Your task to perform on an android device: toggle notification dots Image 0: 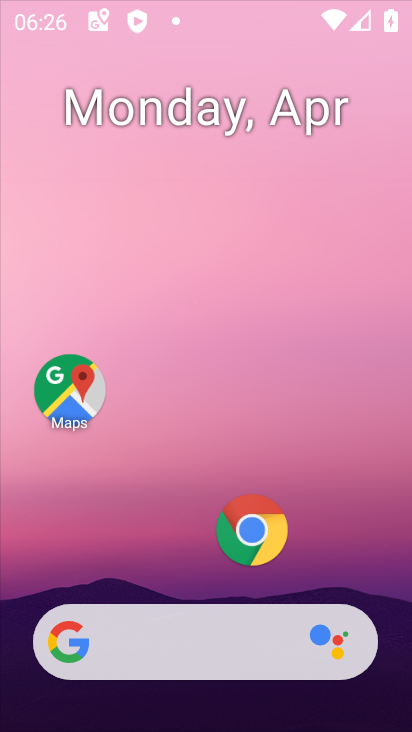
Step 0: press home button
Your task to perform on an android device: toggle notification dots Image 1: 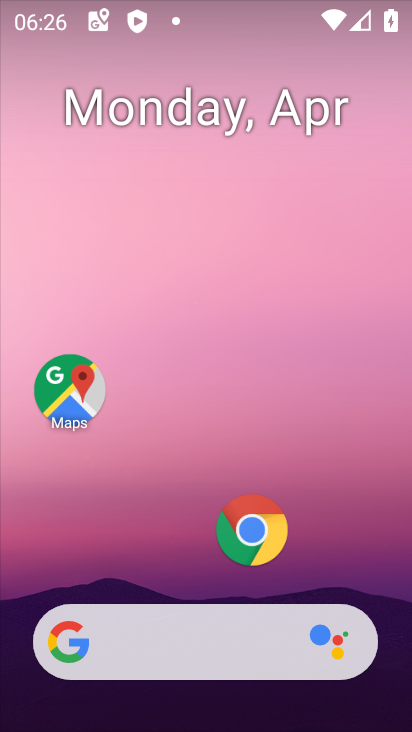
Step 1: drag from (184, 572) to (248, 168)
Your task to perform on an android device: toggle notification dots Image 2: 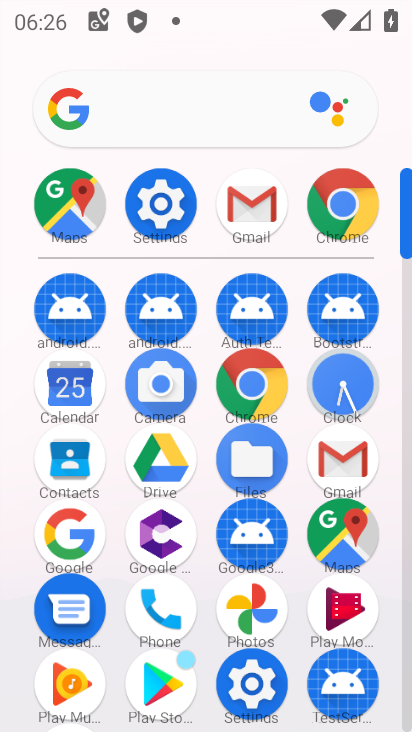
Step 2: click (248, 678)
Your task to perform on an android device: toggle notification dots Image 3: 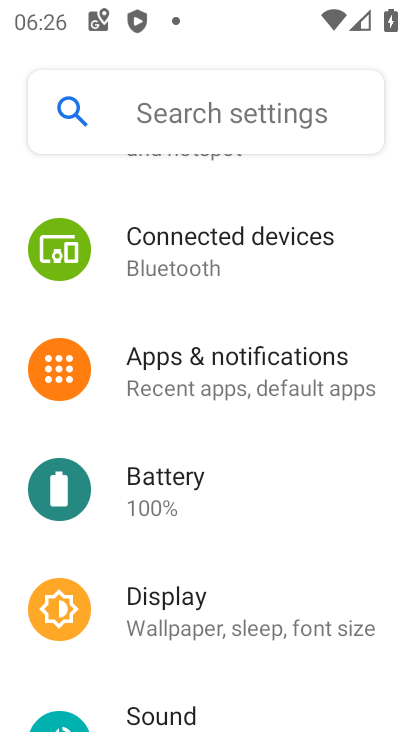
Step 3: click (230, 367)
Your task to perform on an android device: toggle notification dots Image 4: 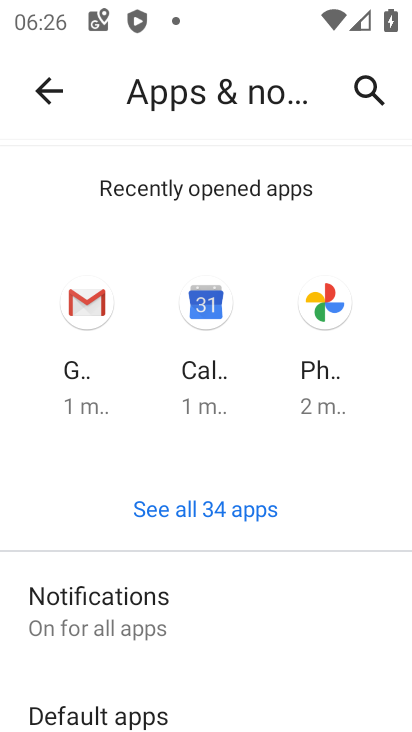
Step 4: click (183, 617)
Your task to perform on an android device: toggle notification dots Image 5: 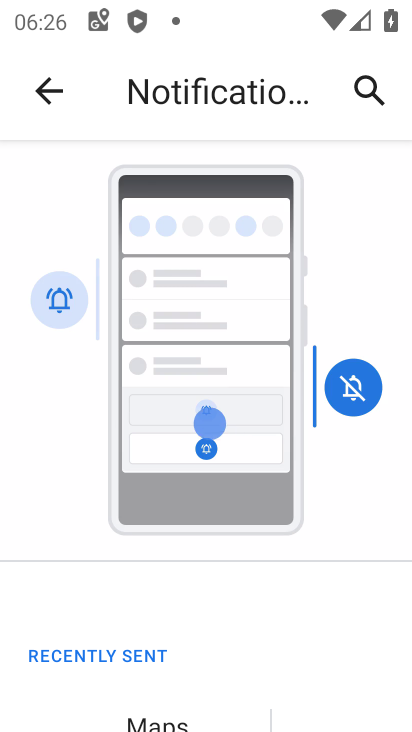
Step 5: drag from (248, 222) to (261, 162)
Your task to perform on an android device: toggle notification dots Image 6: 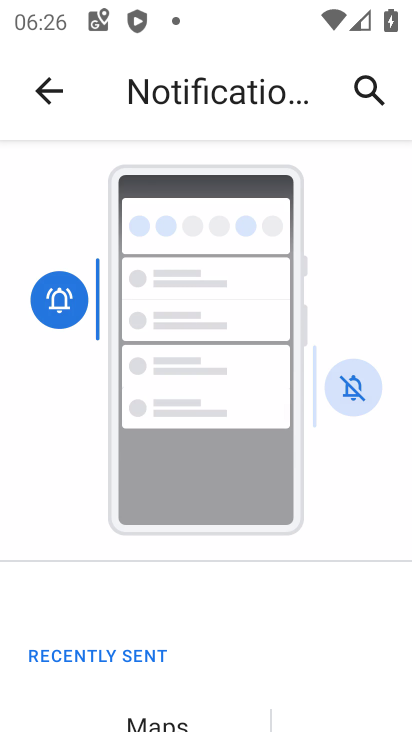
Step 6: drag from (213, 663) to (230, 115)
Your task to perform on an android device: toggle notification dots Image 7: 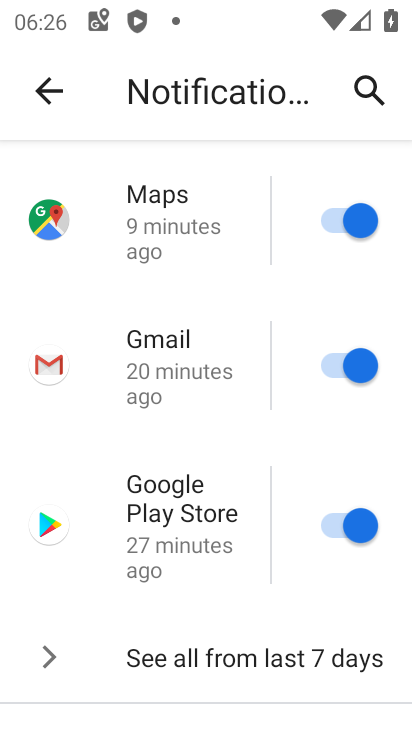
Step 7: drag from (145, 631) to (172, 177)
Your task to perform on an android device: toggle notification dots Image 8: 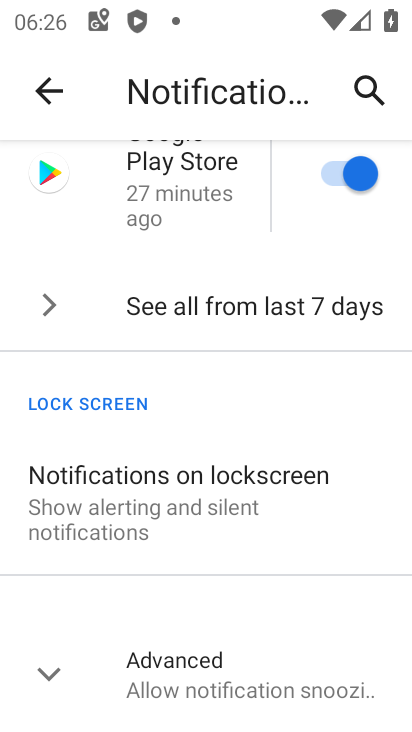
Step 8: click (44, 676)
Your task to perform on an android device: toggle notification dots Image 9: 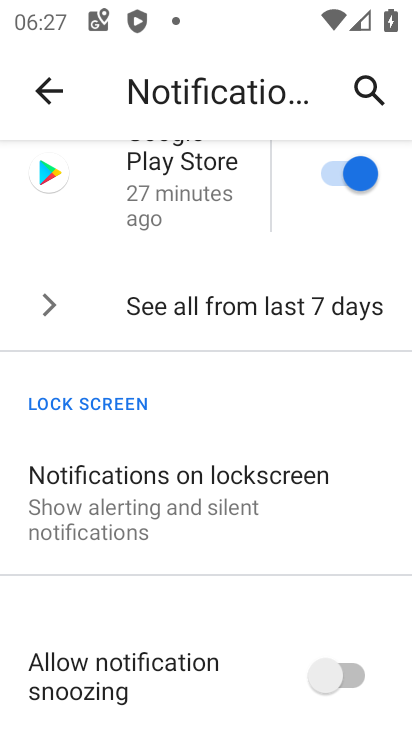
Step 9: drag from (150, 671) to (177, 204)
Your task to perform on an android device: toggle notification dots Image 10: 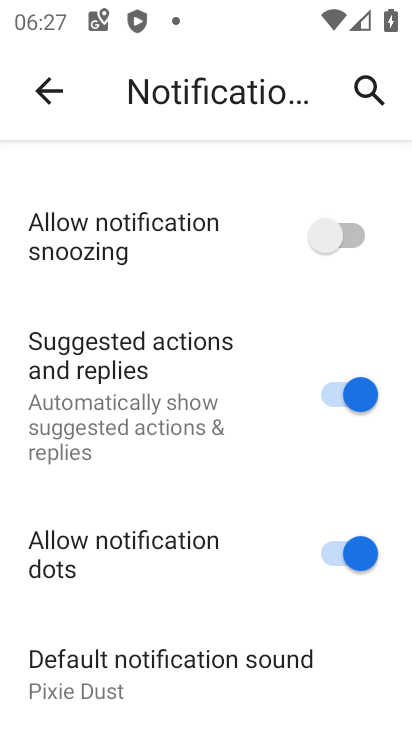
Step 10: drag from (163, 659) to (185, 272)
Your task to perform on an android device: toggle notification dots Image 11: 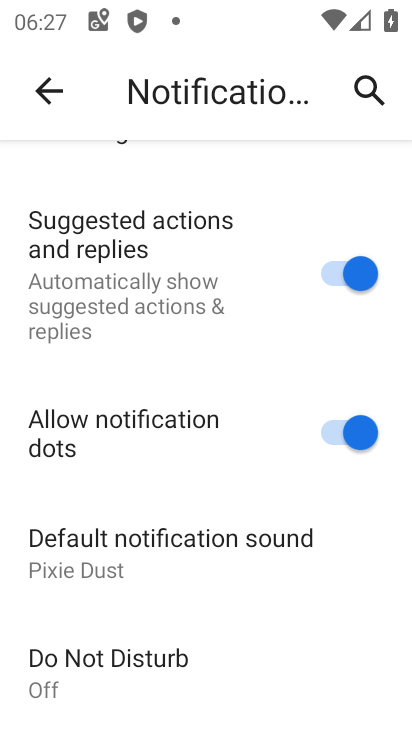
Step 11: click (328, 427)
Your task to perform on an android device: toggle notification dots Image 12: 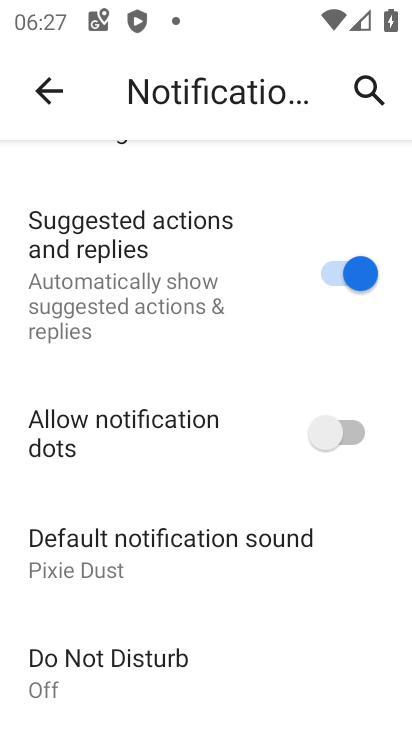
Step 12: task complete